Your task to perform on an android device: open wifi settings Image 0: 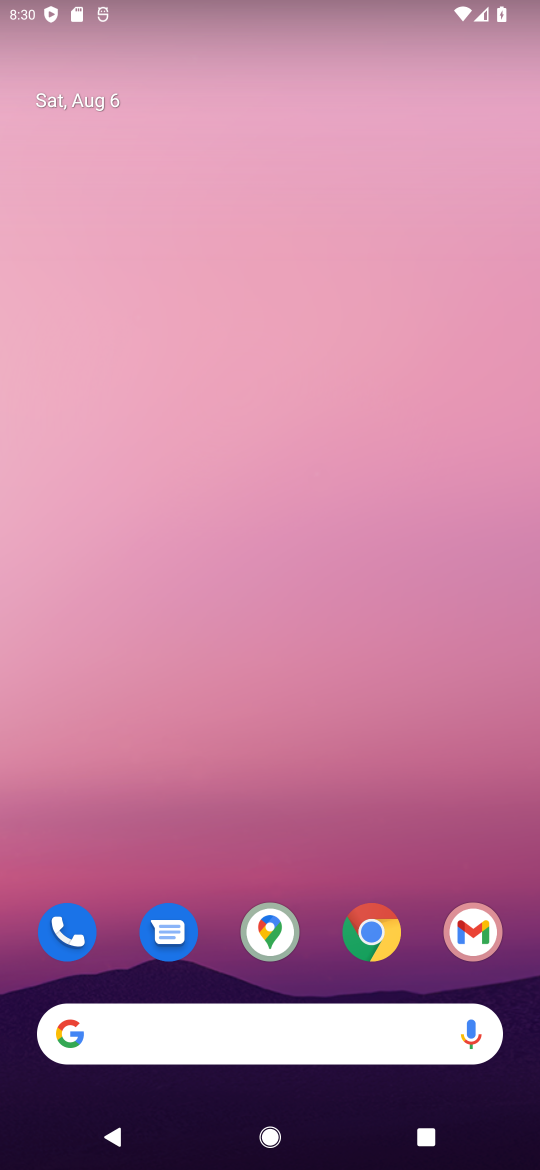
Step 0: drag from (243, 1040) to (289, 465)
Your task to perform on an android device: open wifi settings Image 1: 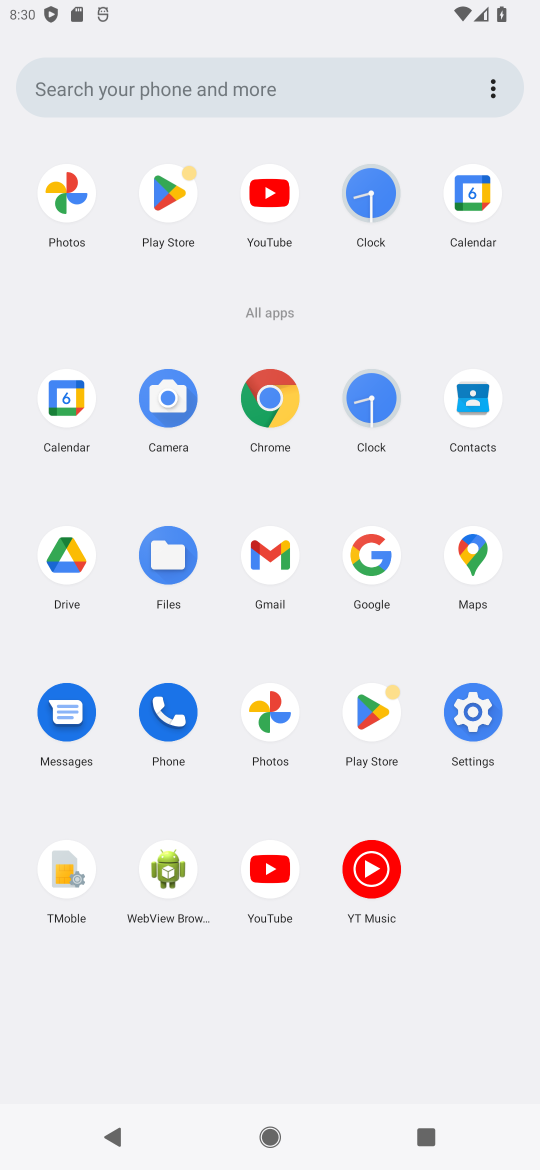
Step 1: click (471, 714)
Your task to perform on an android device: open wifi settings Image 2: 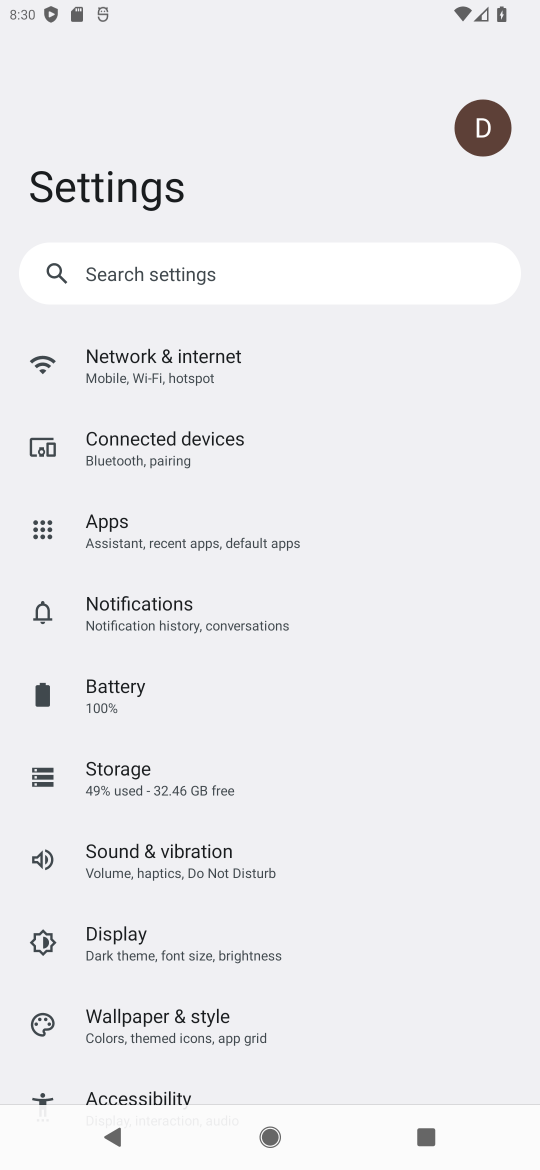
Step 2: click (203, 366)
Your task to perform on an android device: open wifi settings Image 3: 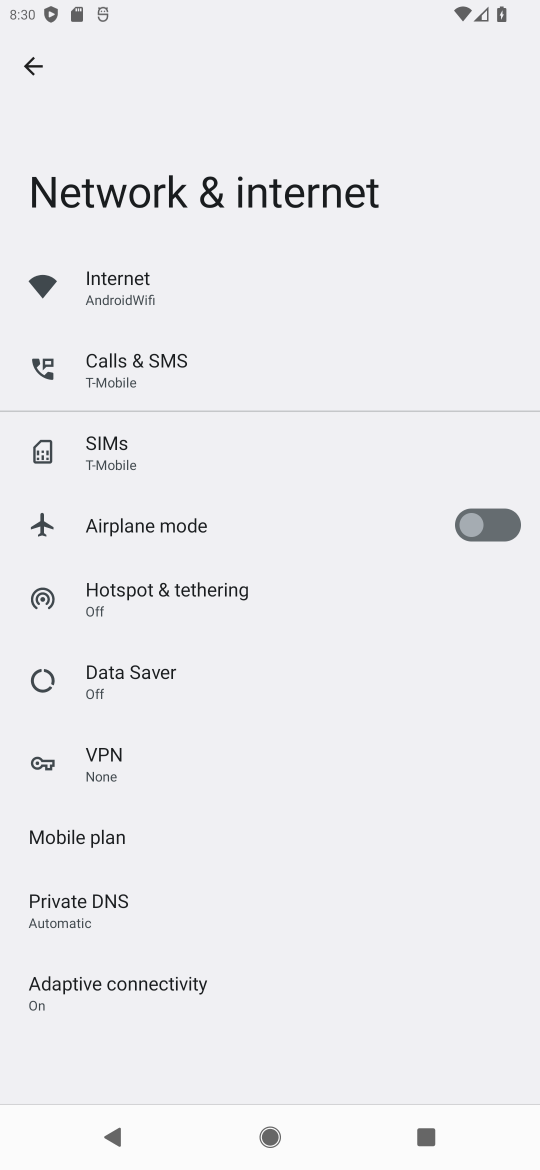
Step 3: click (136, 293)
Your task to perform on an android device: open wifi settings Image 4: 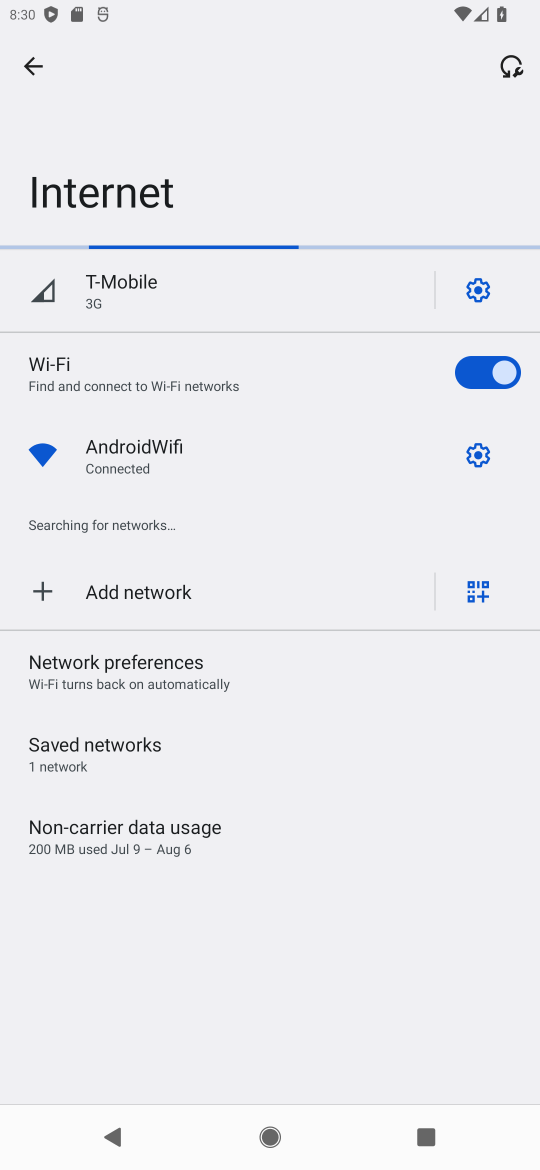
Step 4: click (478, 454)
Your task to perform on an android device: open wifi settings Image 5: 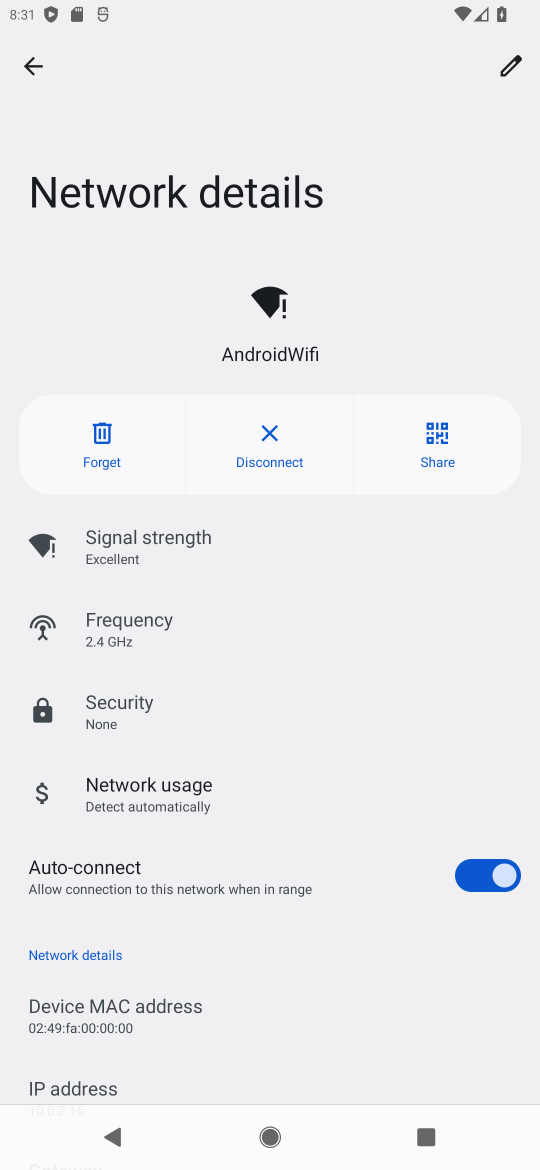
Step 5: task complete